Your task to perform on an android device: turn notification dots off Image 0: 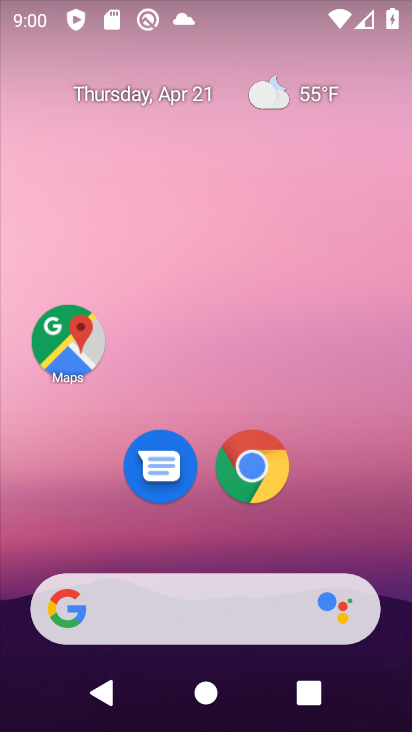
Step 0: drag from (345, 531) to (369, 144)
Your task to perform on an android device: turn notification dots off Image 1: 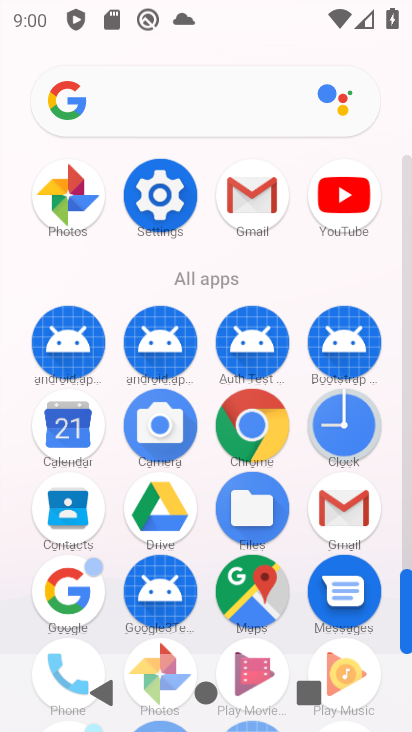
Step 1: click (166, 191)
Your task to perform on an android device: turn notification dots off Image 2: 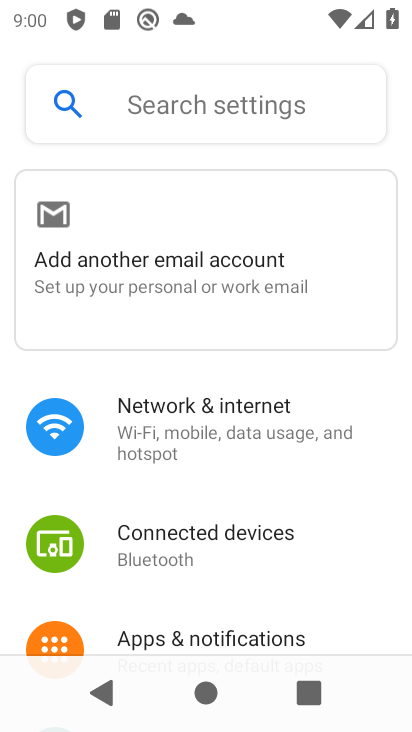
Step 2: click (242, 631)
Your task to perform on an android device: turn notification dots off Image 3: 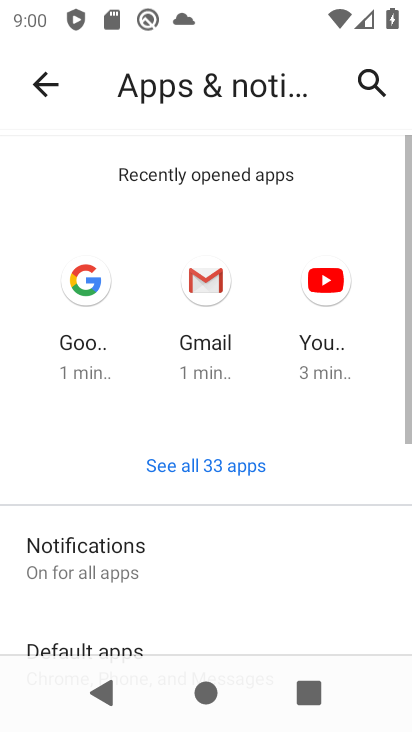
Step 3: click (112, 574)
Your task to perform on an android device: turn notification dots off Image 4: 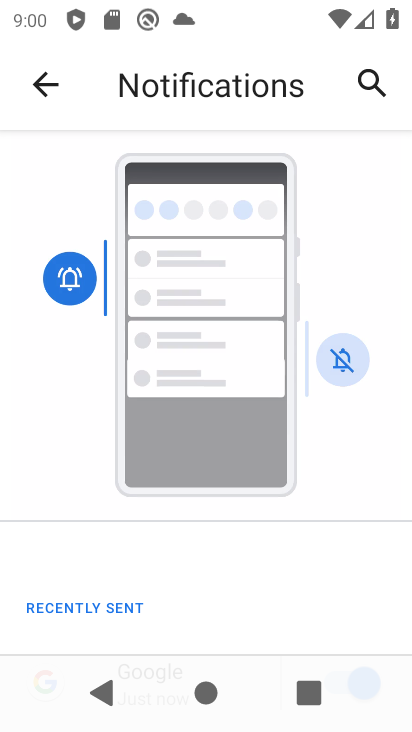
Step 4: drag from (210, 534) to (321, 86)
Your task to perform on an android device: turn notification dots off Image 5: 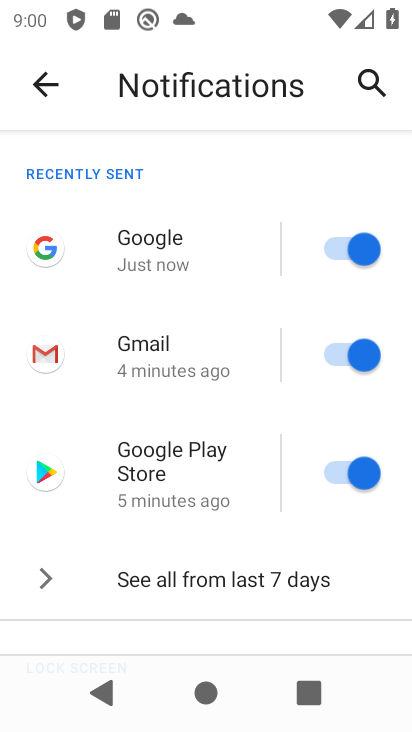
Step 5: drag from (259, 465) to (284, 221)
Your task to perform on an android device: turn notification dots off Image 6: 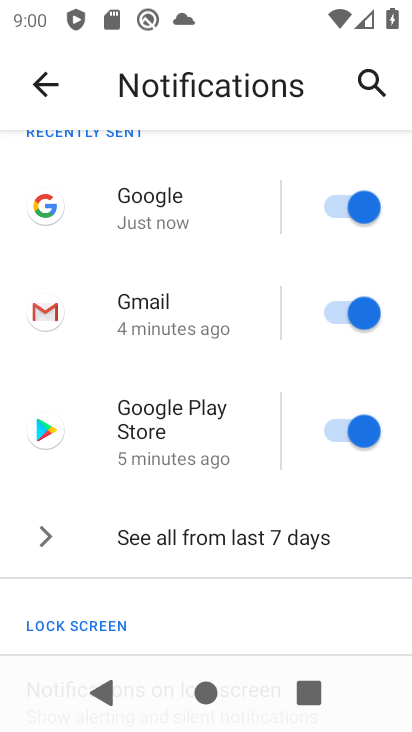
Step 6: drag from (178, 583) to (186, 292)
Your task to perform on an android device: turn notification dots off Image 7: 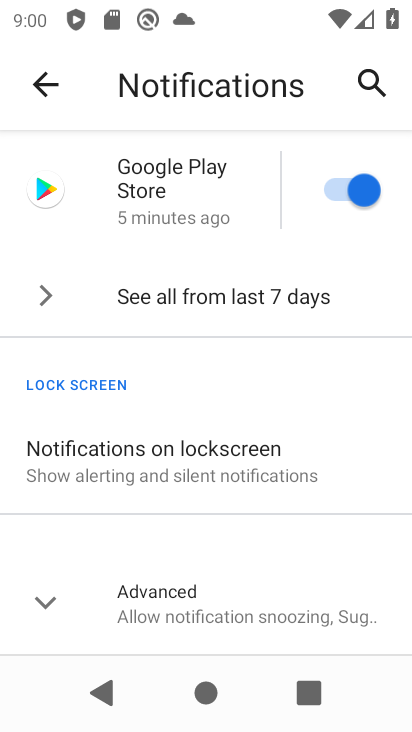
Step 7: drag from (215, 574) to (218, 448)
Your task to perform on an android device: turn notification dots off Image 8: 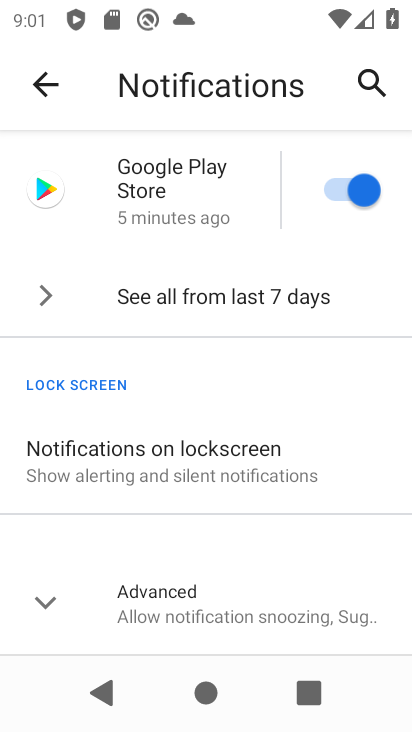
Step 8: click (44, 605)
Your task to perform on an android device: turn notification dots off Image 9: 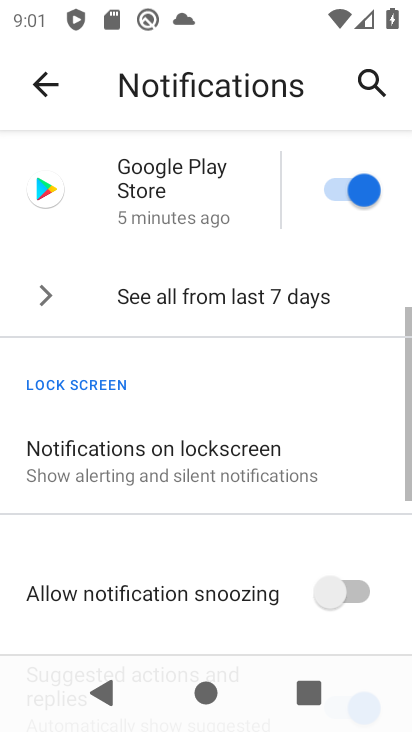
Step 9: drag from (267, 488) to (255, 119)
Your task to perform on an android device: turn notification dots off Image 10: 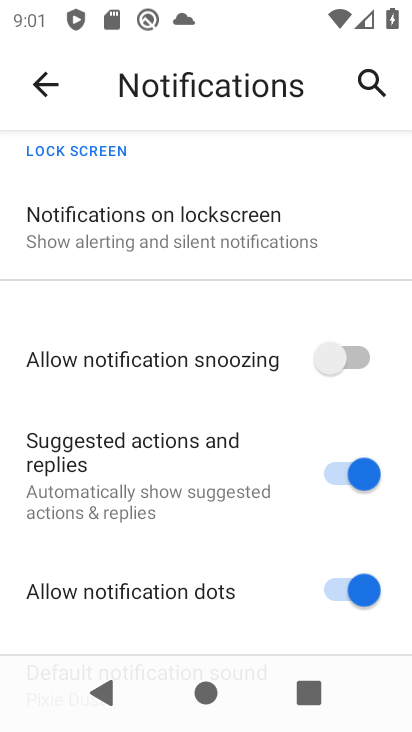
Step 10: click (377, 581)
Your task to perform on an android device: turn notification dots off Image 11: 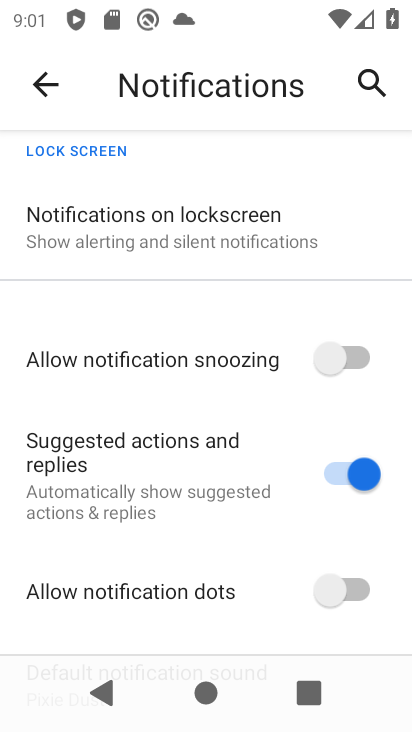
Step 11: task complete